Your task to perform on an android device: Open privacy settings Image 0: 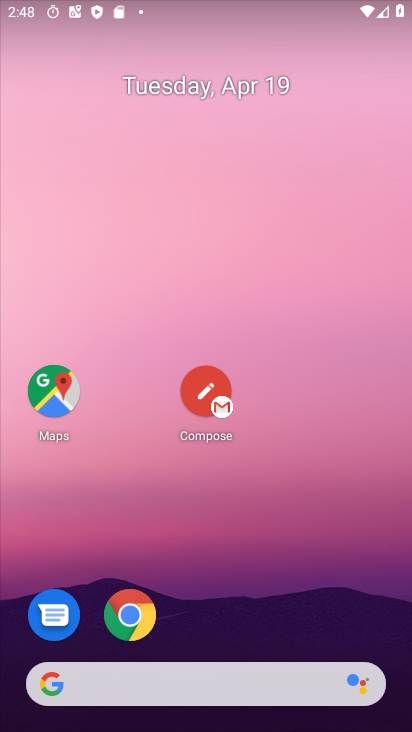
Step 0: drag from (338, 626) to (306, 12)
Your task to perform on an android device: Open privacy settings Image 1: 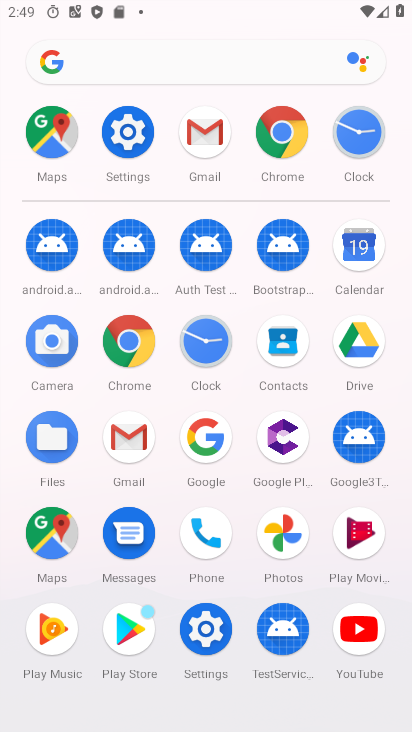
Step 1: click (214, 639)
Your task to perform on an android device: Open privacy settings Image 2: 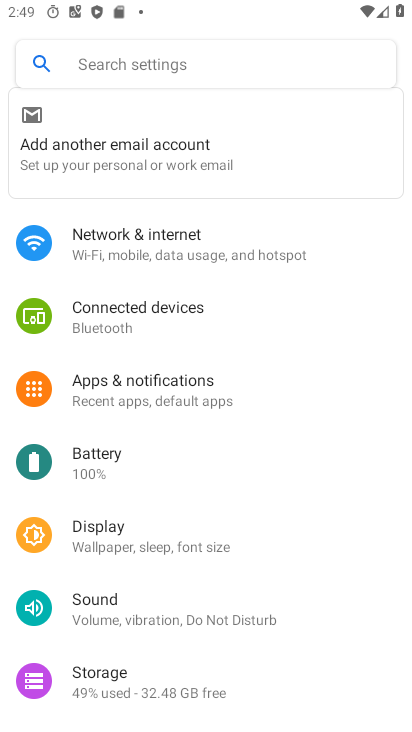
Step 2: drag from (208, 574) to (208, 245)
Your task to perform on an android device: Open privacy settings Image 3: 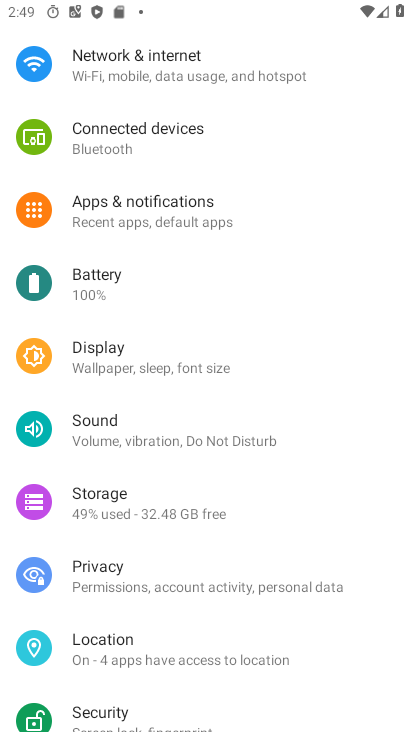
Step 3: drag from (248, 672) to (252, 170)
Your task to perform on an android device: Open privacy settings Image 4: 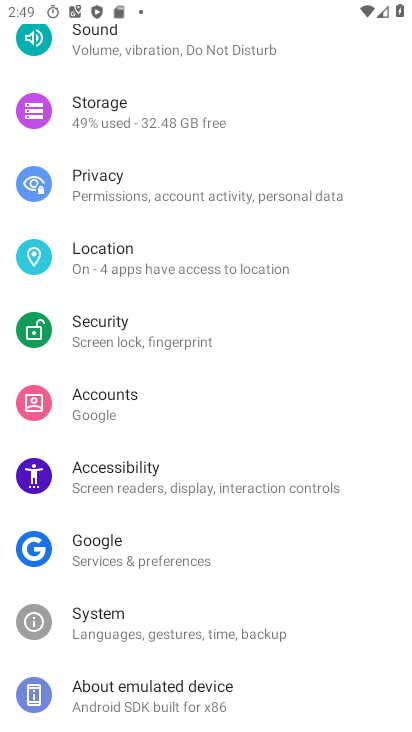
Step 4: drag from (280, 256) to (295, 669)
Your task to perform on an android device: Open privacy settings Image 5: 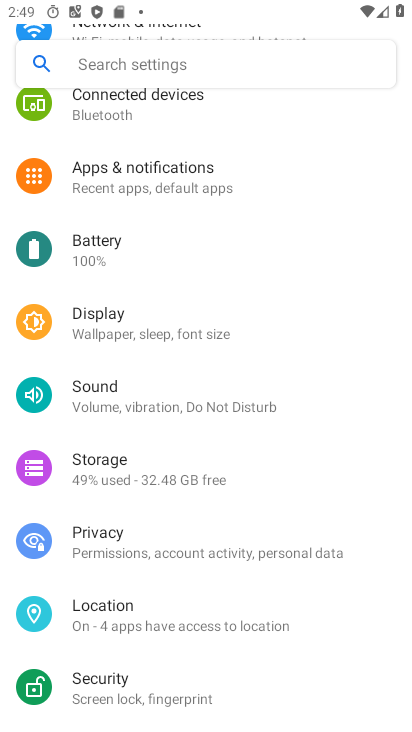
Step 5: drag from (247, 201) to (308, 672)
Your task to perform on an android device: Open privacy settings Image 6: 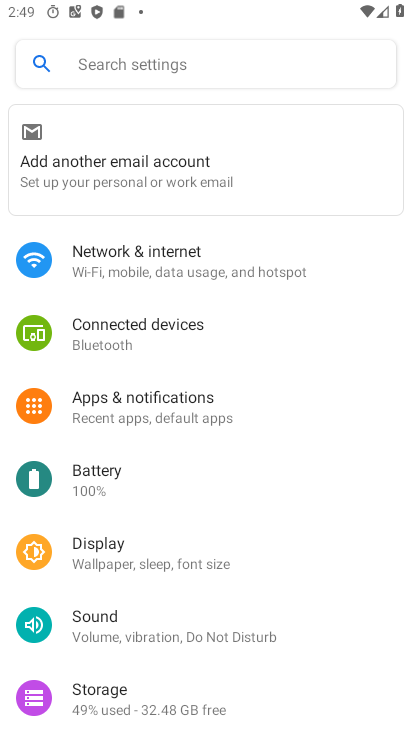
Step 6: drag from (314, 643) to (291, 316)
Your task to perform on an android device: Open privacy settings Image 7: 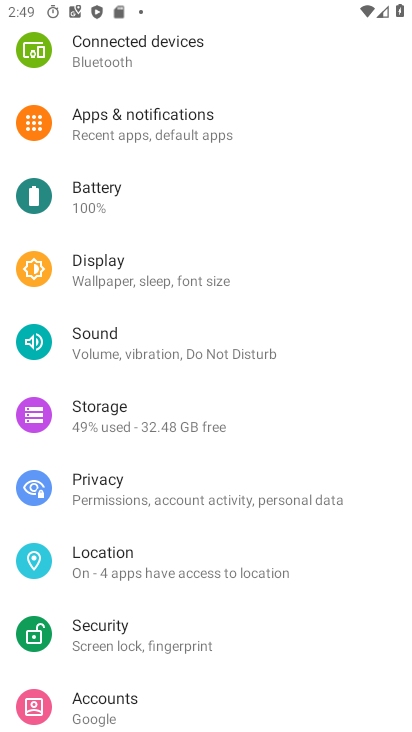
Step 7: press home button
Your task to perform on an android device: Open privacy settings Image 8: 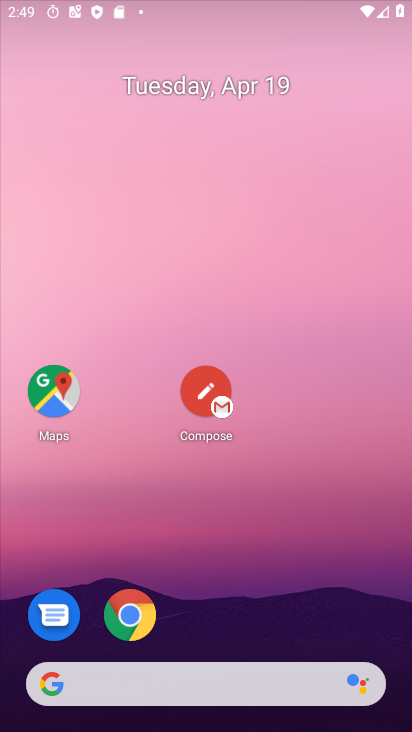
Step 8: drag from (242, 595) to (220, 65)
Your task to perform on an android device: Open privacy settings Image 9: 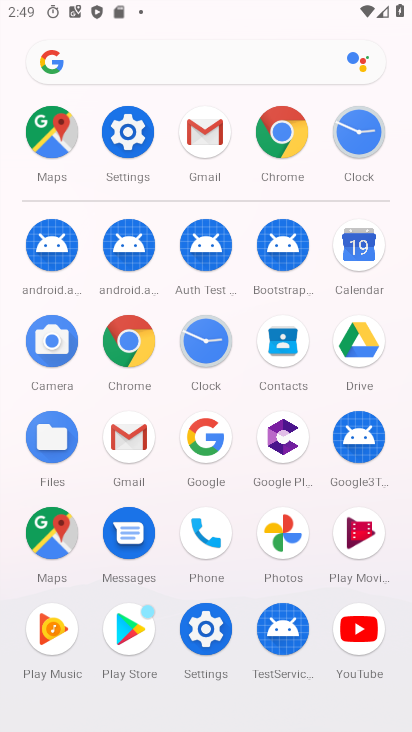
Step 9: click (124, 359)
Your task to perform on an android device: Open privacy settings Image 10: 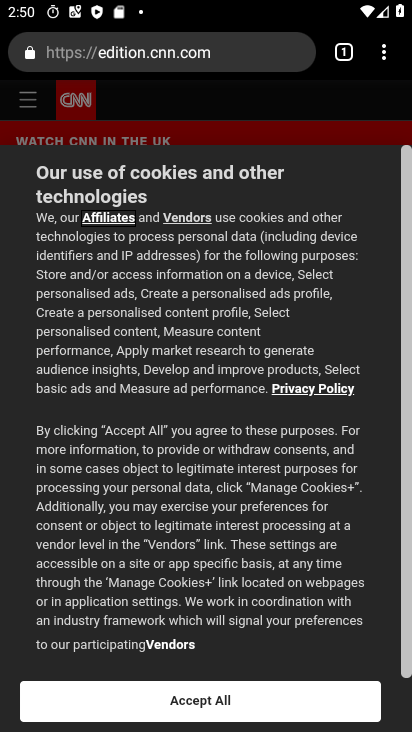
Step 10: click (382, 55)
Your task to perform on an android device: Open privacy settings Image 11: 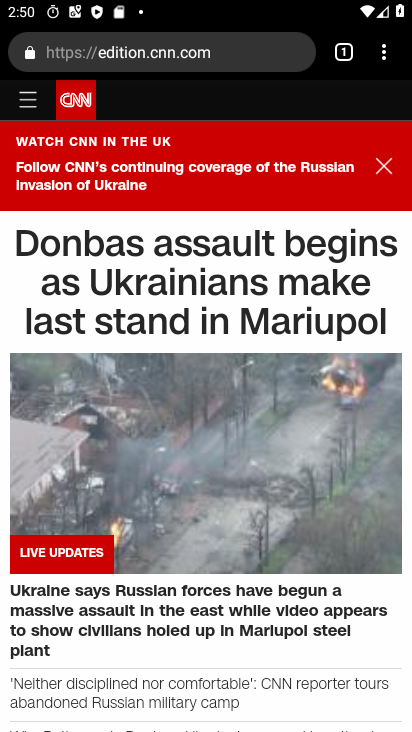
Step 11: click (374, 60)
Your task to perform on an android device: Open privacy settings Image 12: 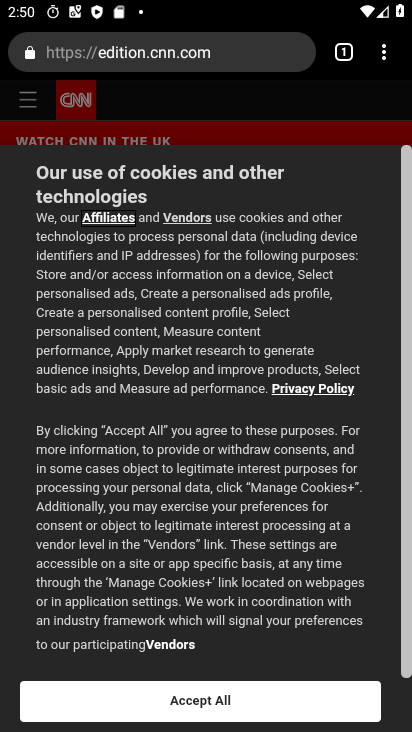
Step 12: click (391, 57)
Your task to perform on an android device: Open privacy settings Image 13: 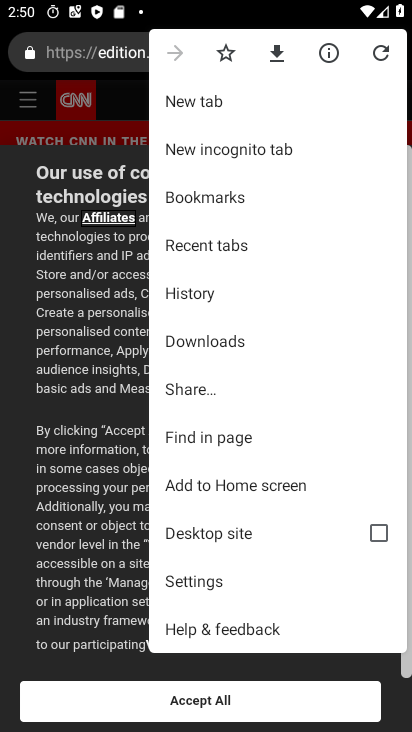
Step 13: drag from (305, 619) to (337, 259)
Your task to perform on an android device: Open privacy settings Image 14: 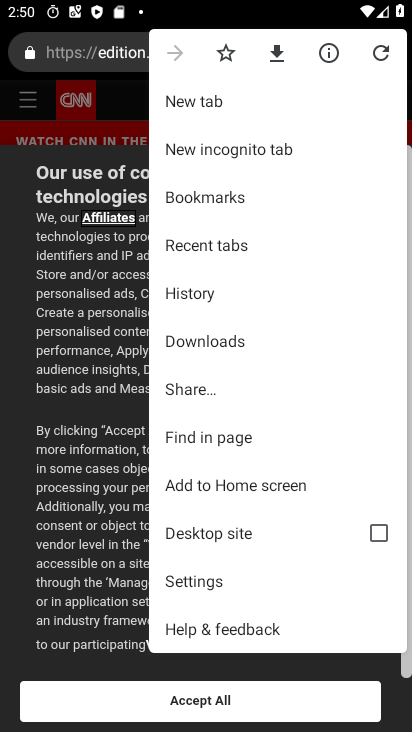
Step 14: click (271, 590)
Your task to perform on an android device: Open privacy settings Image 15: 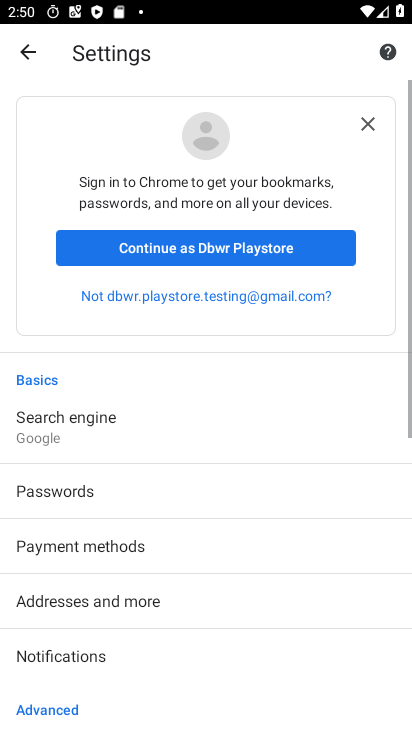
Step 15: drag from (271, 590) to (260, 165)
Your task to perform on an android device: Open privacy settings Image 16: 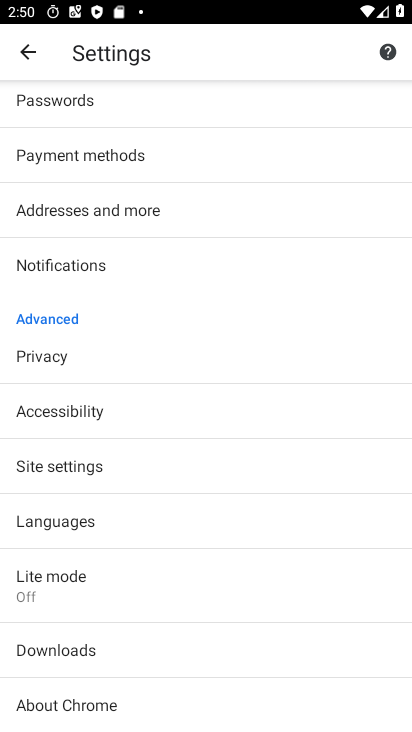
Step 16: drag from (204, 628) to (207, 248)
Your task to perform on an android device: Open privacy settings Image 17: 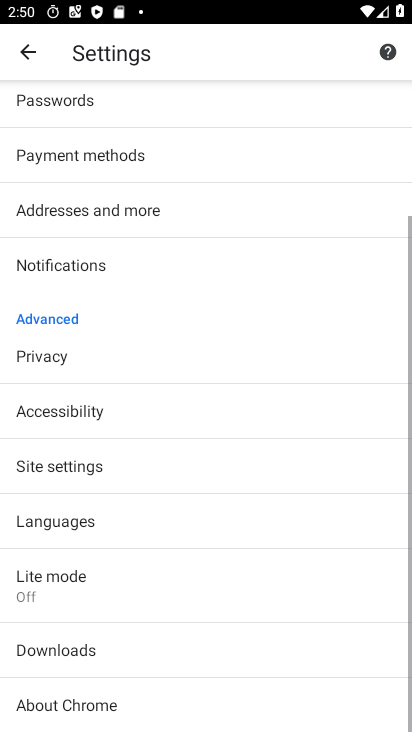
Step 17: click (118, 350)
Your task to perform on an android device: Open privacy settings Image 18: 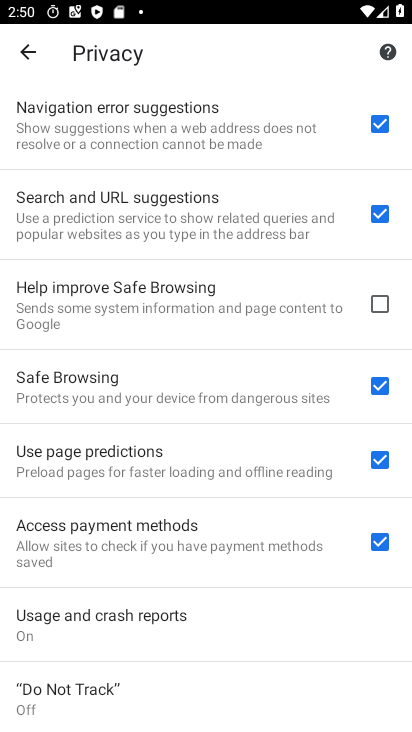
Step 18: task complete